Your task to perform on an android device: Open internet settings Image 0: 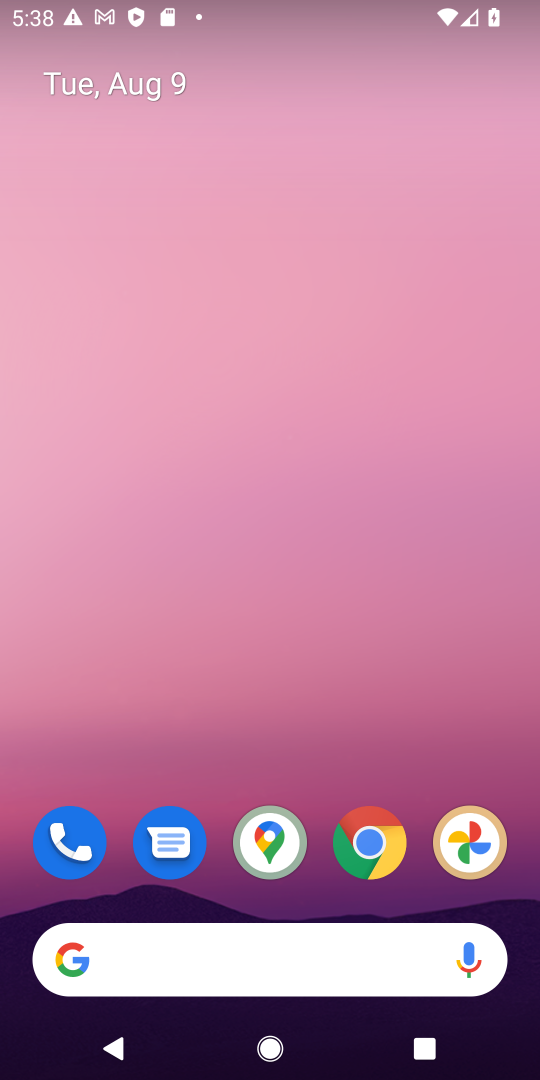
Step 0: drag from (359, 916) to (525, 238)
Your task to perform on an android device: Open internet settings Image 1: 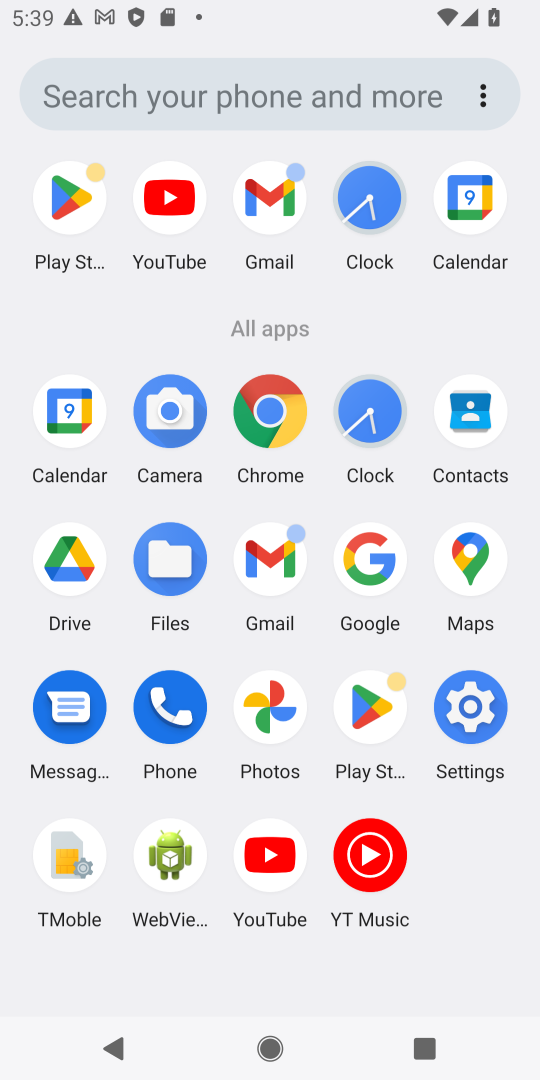
Step 1: click (482, 721)
Your task to perform on an android device: Open internet settings Image 2: 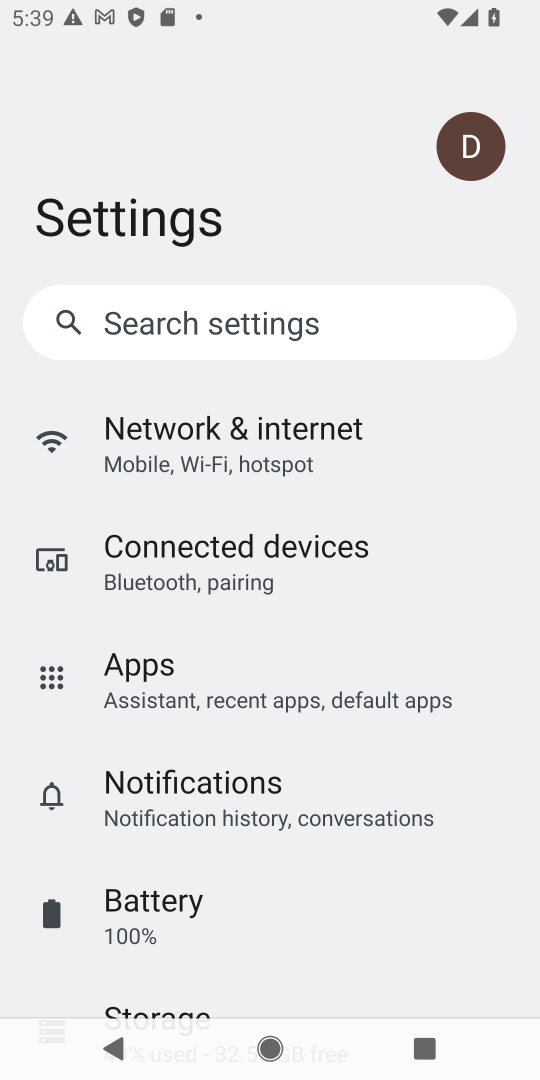
Step 2: click (223, 429)
Your task to perform on an android device: Open internet settings Image 3: 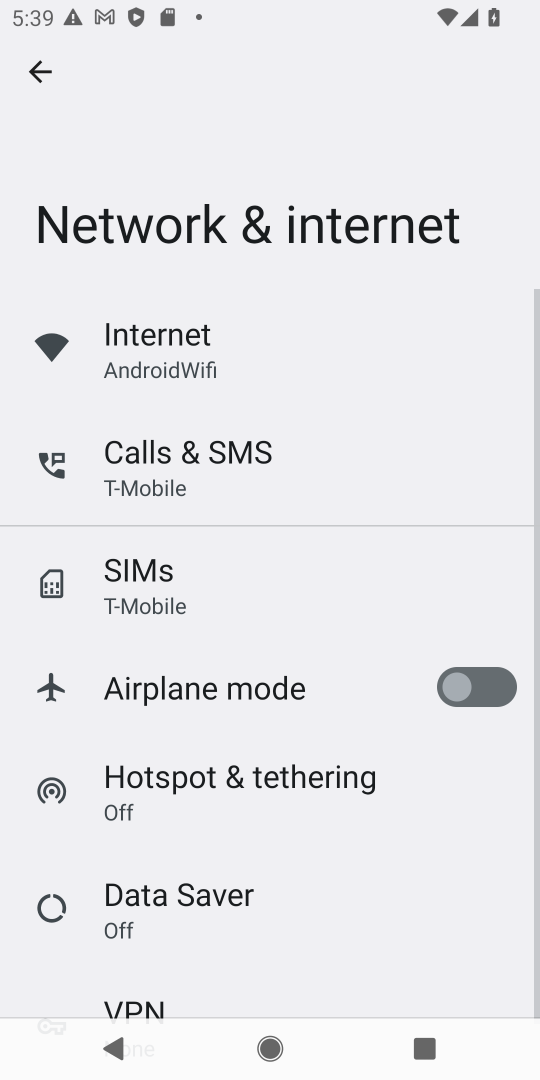
Step 3: click (124, 344)
Your task to perform on an android device: Open internet settings Image 4: 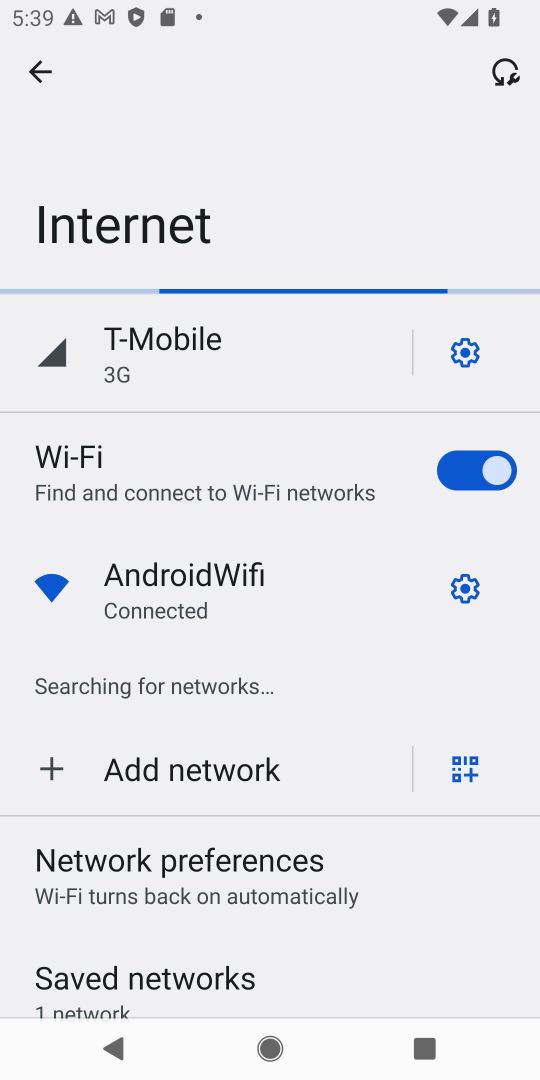
Step 4: task complete